Your task to perform on an android device: Open Chrome and go to the settings page Image 0: 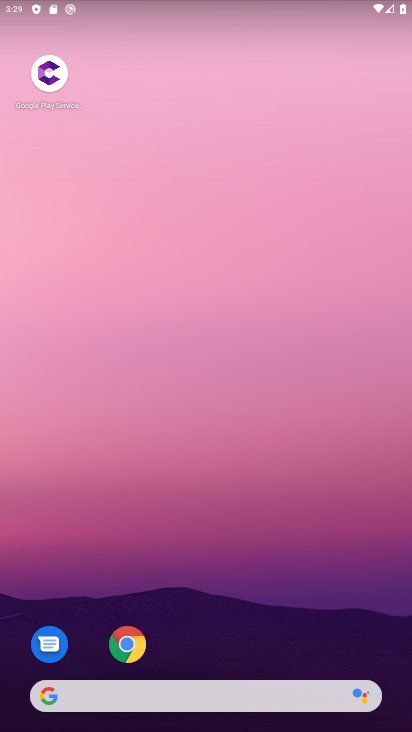
Step 0: click (127, 642)
Your task to perform on an android device: Open Chrome and go to the settings page Image 1: 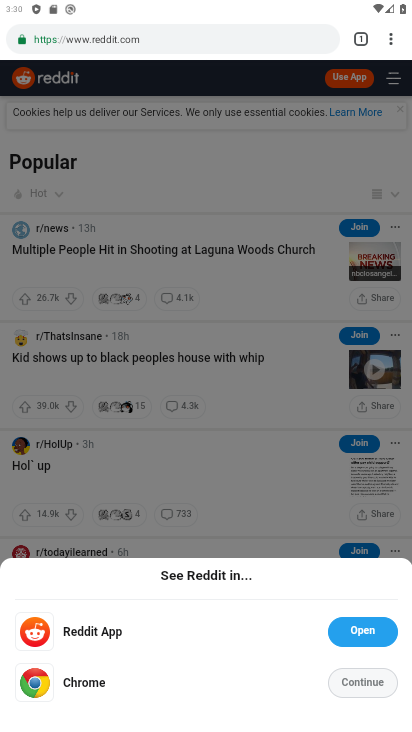
Step 1: click (388, 43)
Your task to perform on an android device: Open Chrome and go to the settings page Image 2: 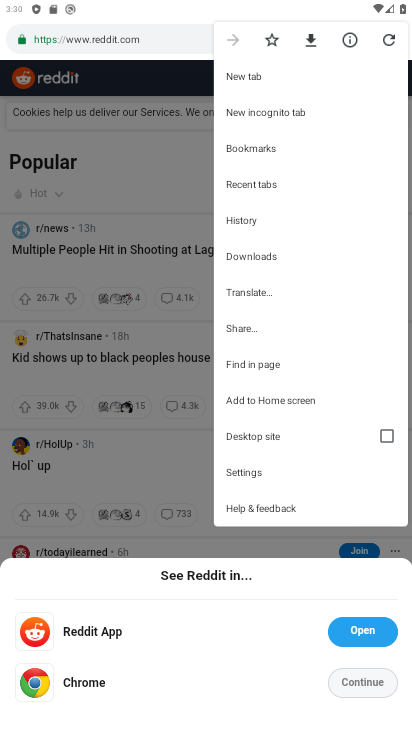
Step 2: click (266, 470)
Your task to perform on an android device: Open Chrome and go to the settings page Image 3: 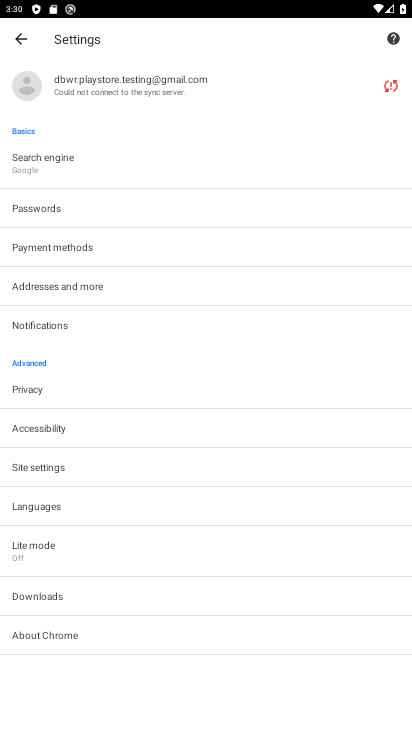
Step 3: task complete